Your task to perform on an android device: turn off location Image 0: 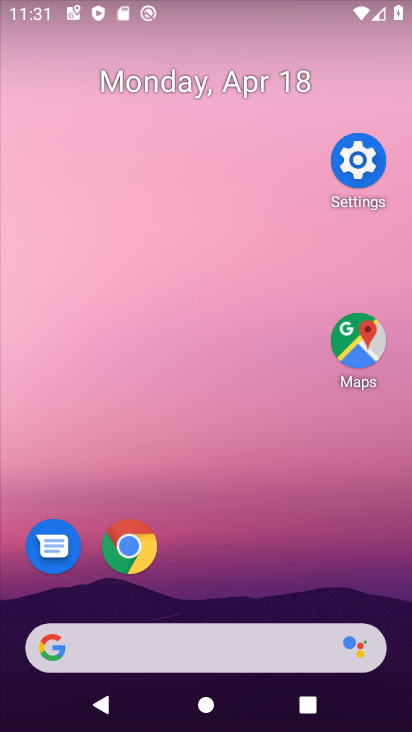
Step 0: drag from (266, 678) to (187, 80)
Your task to perform on an android device: turn off location Image 1: 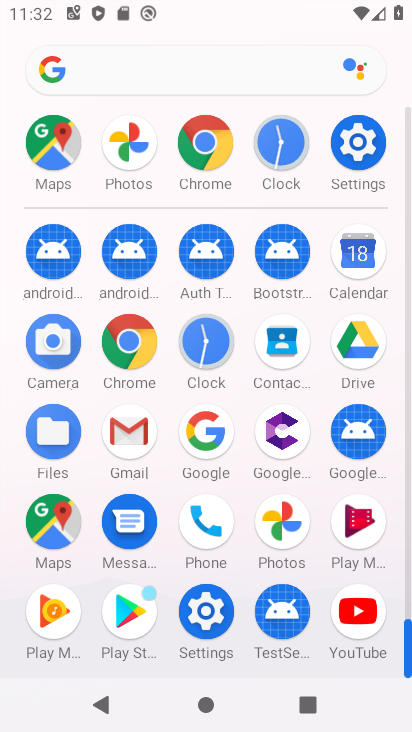
Step 1: click (352, 137)
Your task to perform on an android device: turn off location Image 2: 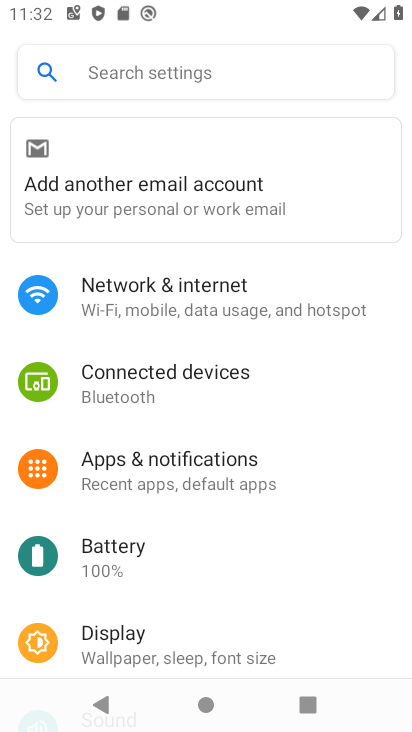
Step 2: click (183, 327)
Your task to perform on an android device: turn off location Image 3: 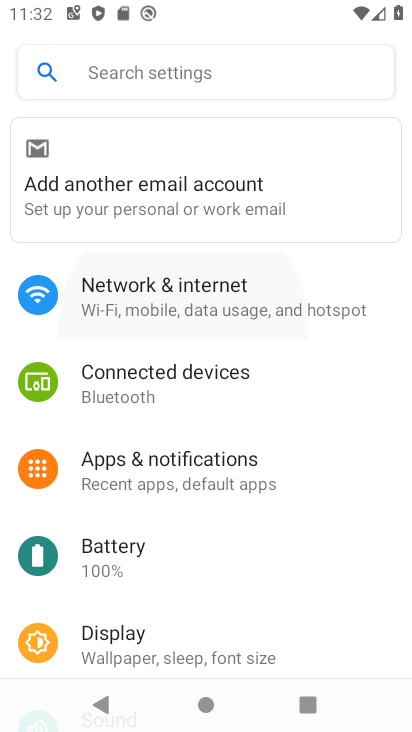
Step 3: drag from (190, 238) to (175, 182)
Your task to perform on an android device: turn off location Image 4: 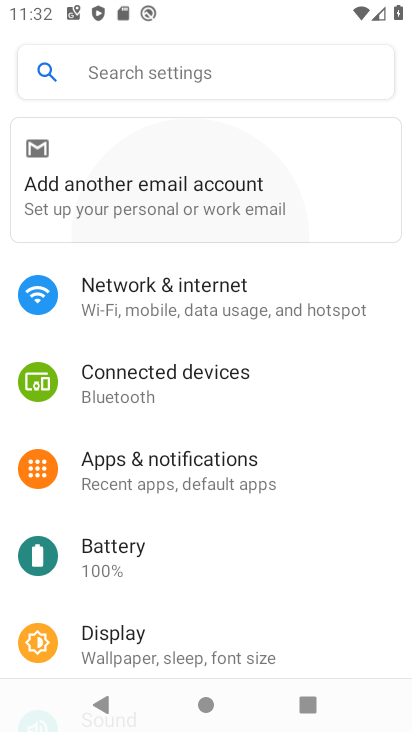
Step 4: drag from (177, 490) to (178, 321)
Your task to perform on an android device: turn off location Image 5: 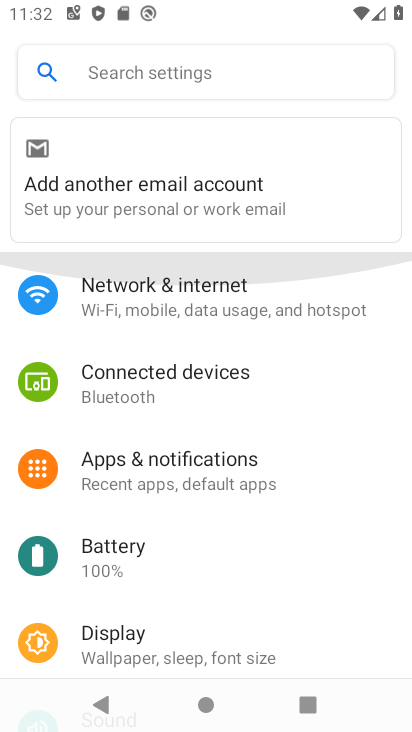
Step 5: drag from (211, 580) to (197, 318)
Your task to perform on an android device: turn off location Image 6: 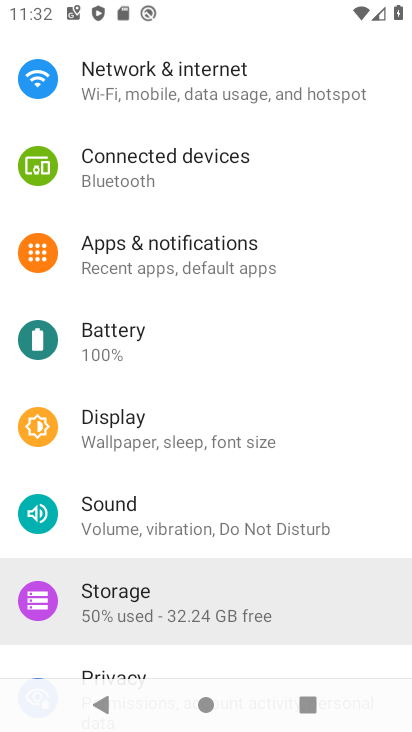
Step 6: drag from (214, 577) to (204, 230)
Your task to perform on an android device: turn off location Image 7: 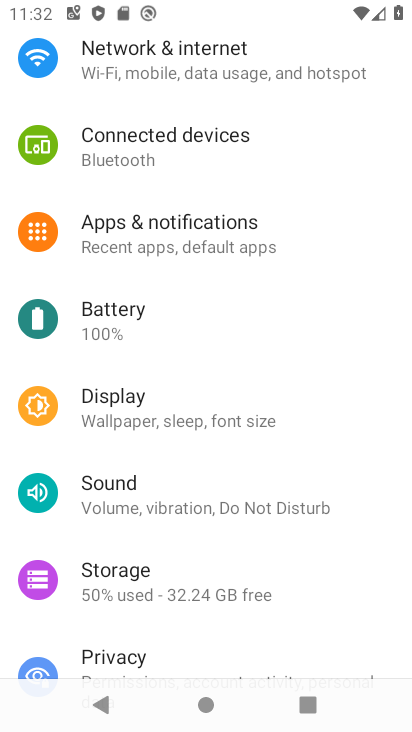
Step 7: drag from (174, 354) to (172, 198)
Your task to perform on an android device: turn off location Image 8: 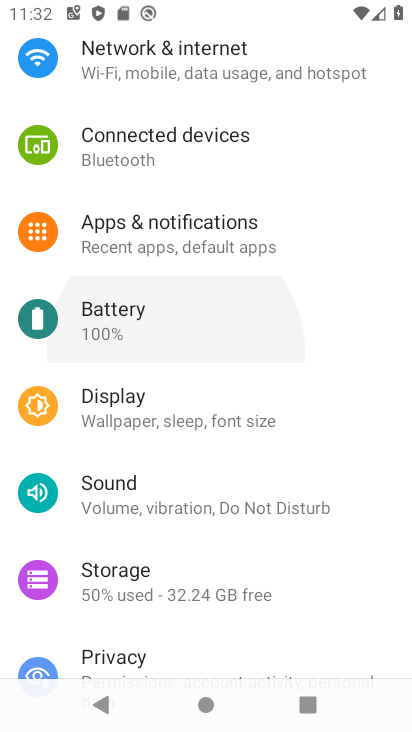
Step 8: drag from (239, 393) to (217, 266)
Your task to perform on an android device: turn off location Image 9: 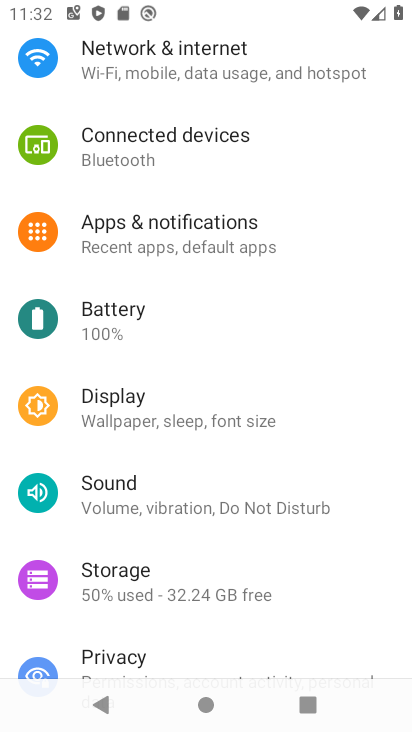
Step 9: drag from (153, 468) to (251, 214)
Your task to perform on an android device: turn off location Image 10: 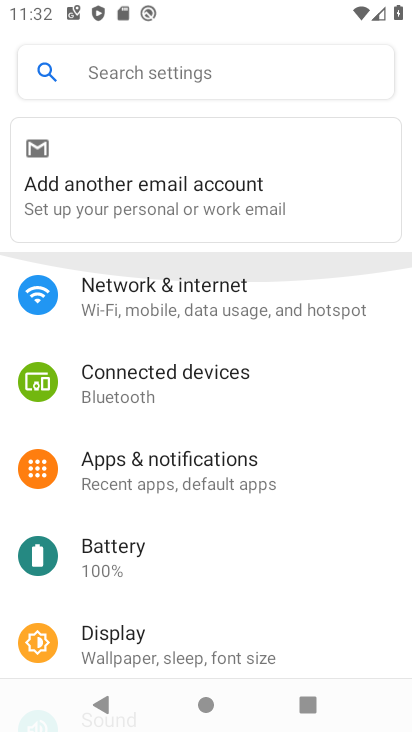
Step 10: drag from (300, 557) to (186, 252)
Your task to perform on an android device: turn off location Image 11: 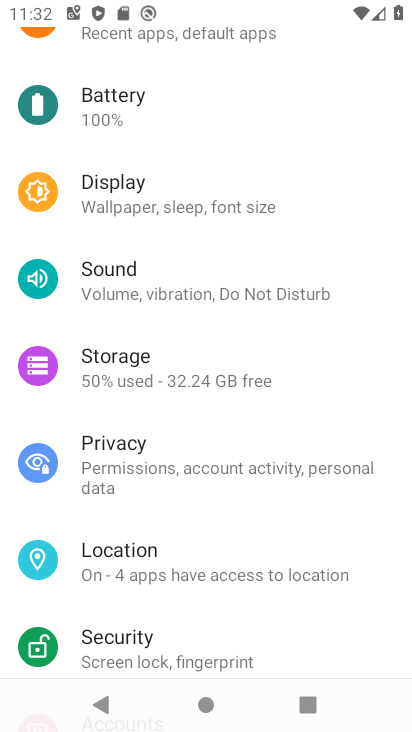
Step 11: click (166, 572)
Your task to perform on an android device: turn off location Image 12: 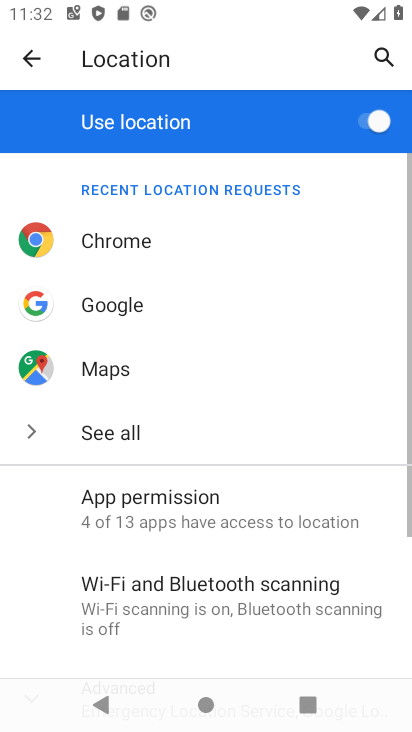
Step 12: click (369, 118)
Your task to perform on an android device: turn off location Image 13: 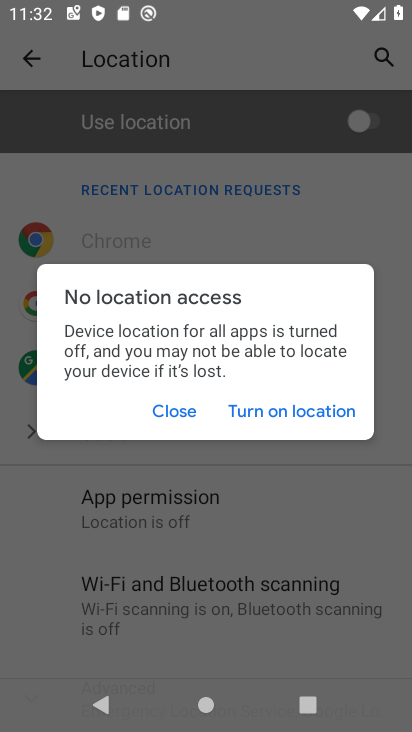
Step 13: task complete